Your task to perform on an android device: stop showing notifications on the lock screen Image 0: 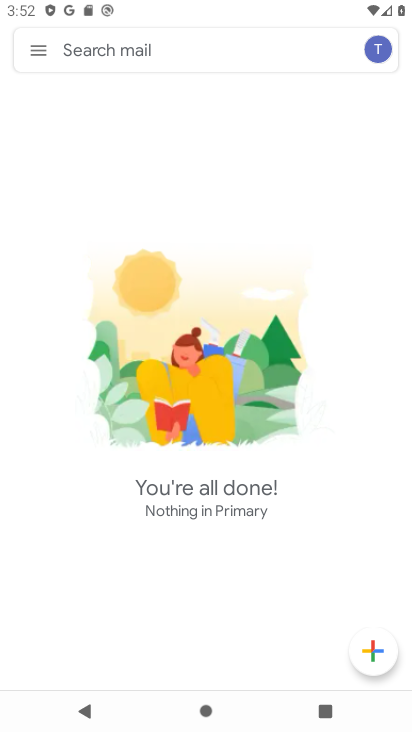
Step 0: press home button
Your task to perform on an android device: stop showing notifications on the lock screen Image 1: 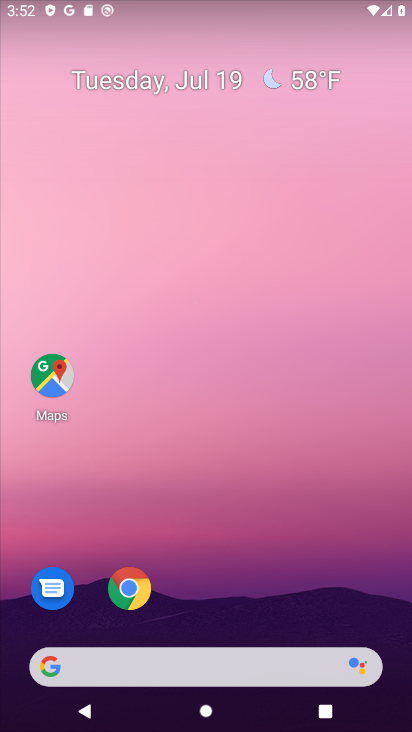
Step 1: drag from (250, 615) to (309, 178)
Your task to perform on an android device: stop showing notifications on the lock screen Image 2: 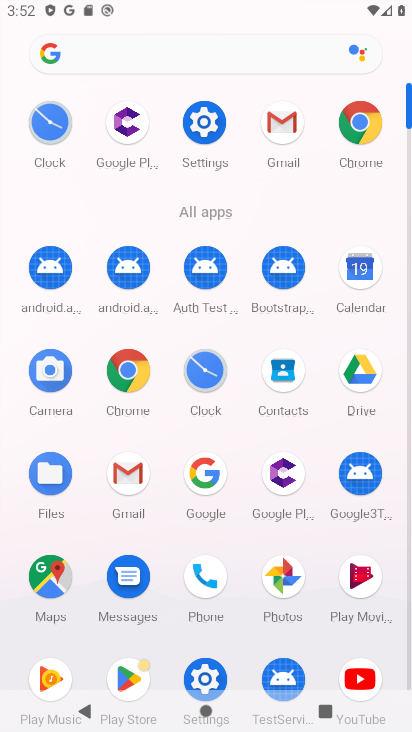
Step 2: click (203, 676)
Your task to perform on an android device: stop showing notifications on the lock screen Image 3: 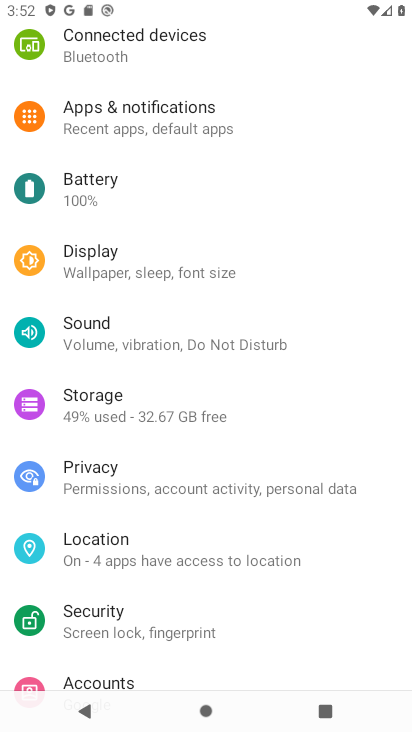
Step 3: click (200, 114)
Your task to perform on an android device: stop showing notifications on the lock screen Image 4: 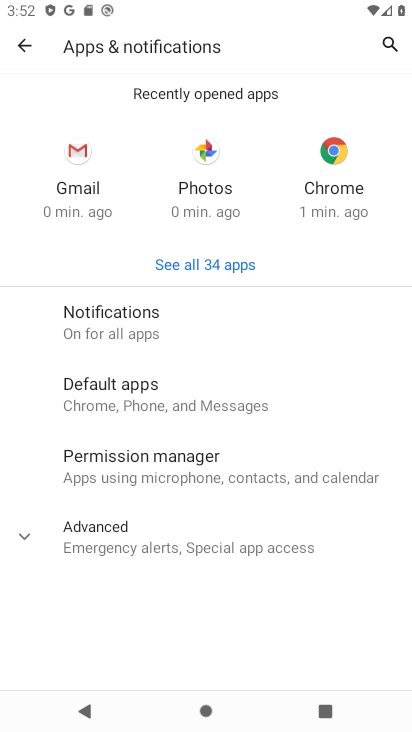
Step 4: click (192, 316)
Your task to perform on an android device: stop showing notifications on the lock screen Image 5: 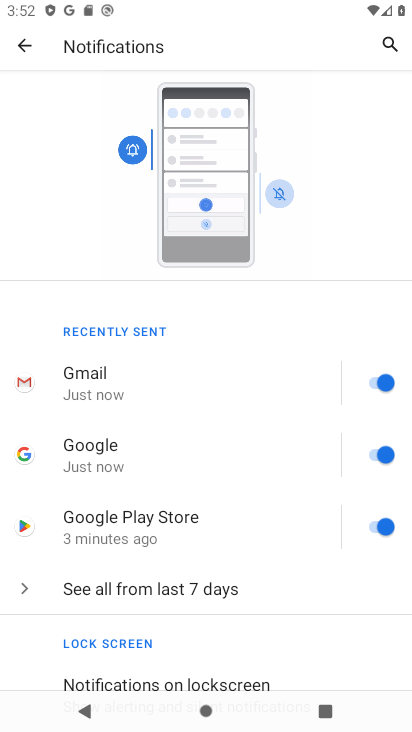
Step 5: drag from (178, 625) to (226, 388)
Your task to perform on an android device: stop showing notifications on the lock screen Image 6: 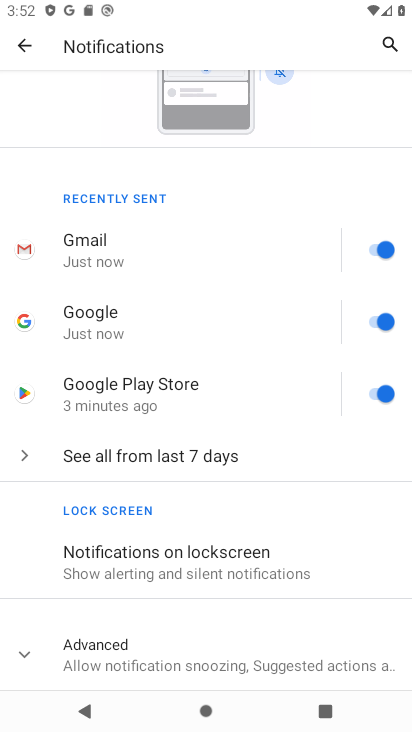
Step 6: click (207, 566)
Your task to perform on an android device: stop showing notifications on the lock screen Image 7: 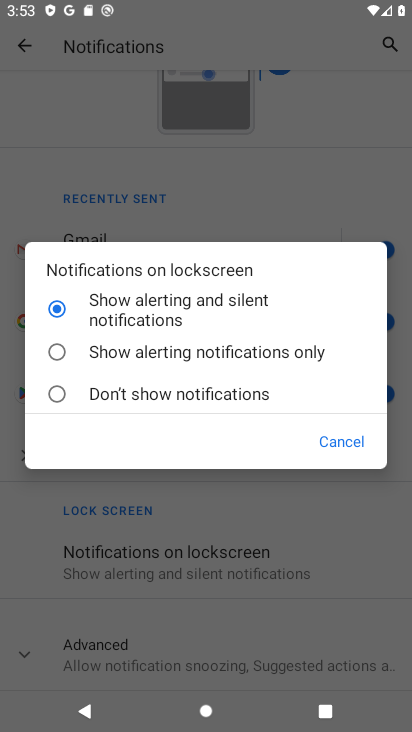
Step 7: click (131, 392)
Your task to perform on an android device: stop showing notifications on the lock screen Image 8: 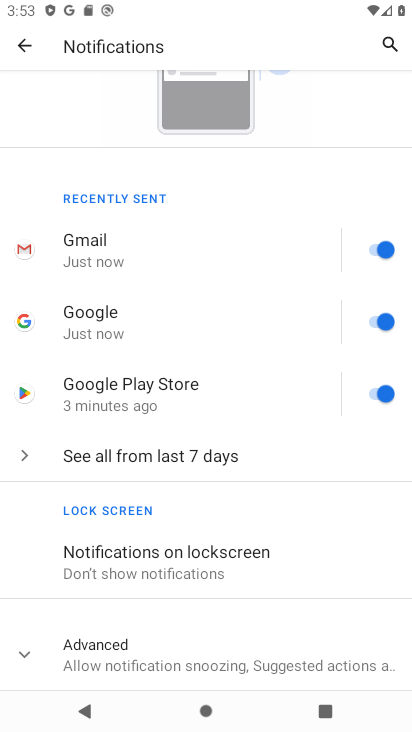
Step 8: task complete